Your task to perform on an android device: toggle priority inbox in the gmail app Image 0: 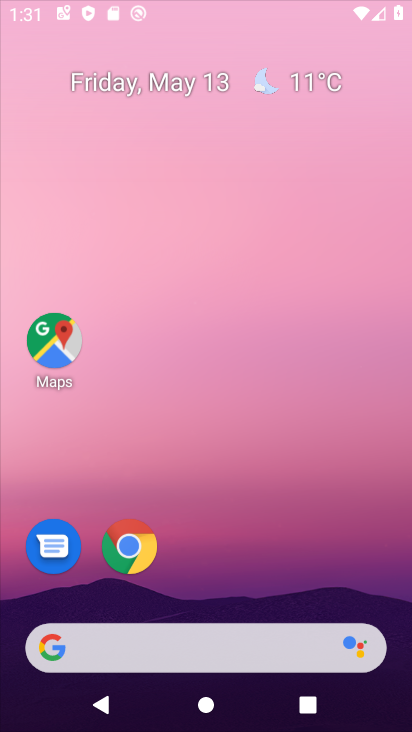
Step 0: click (211, 7)
Your task to perform on an android device: toggle priority inbox in the gmail app Image 1: 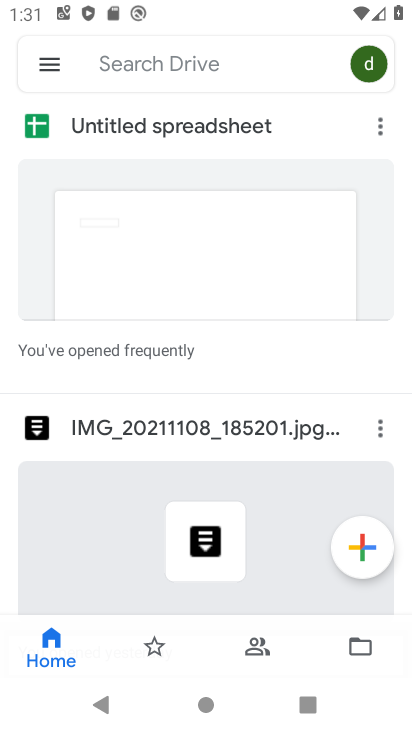
Step 1: press home button
Your task to perform on an android device: toggle priority inbox in the gmail app Image 2: 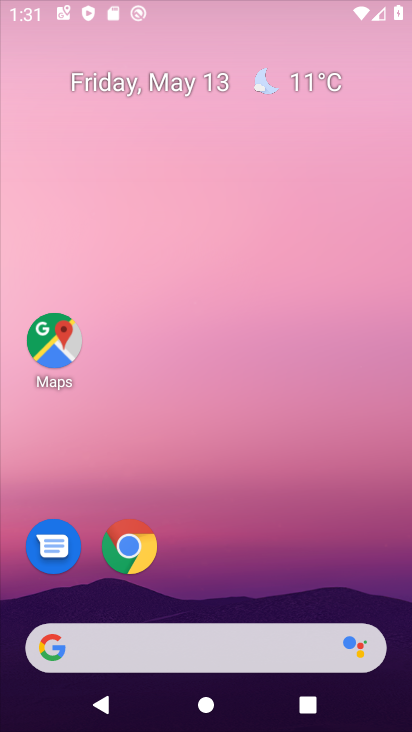
Step 2: drag from (237, 669) to (237, 329)
Your task to perform on an android device: toggle priority inbox in the gmail app Image 3: 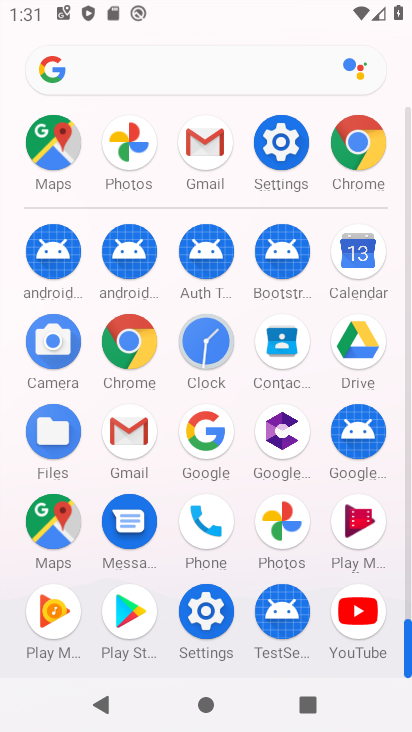
Step 3: click (142, 451)
Your task to perform on an android device: toggle priority inbox in the gmail app Image 4: 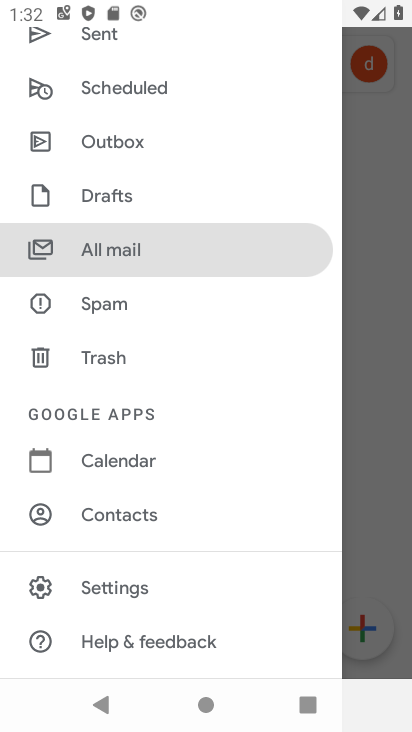
Step 4: click (172, 580)
Your task to perform on an android device: toggle priority inbox in the gmail app Image 5: 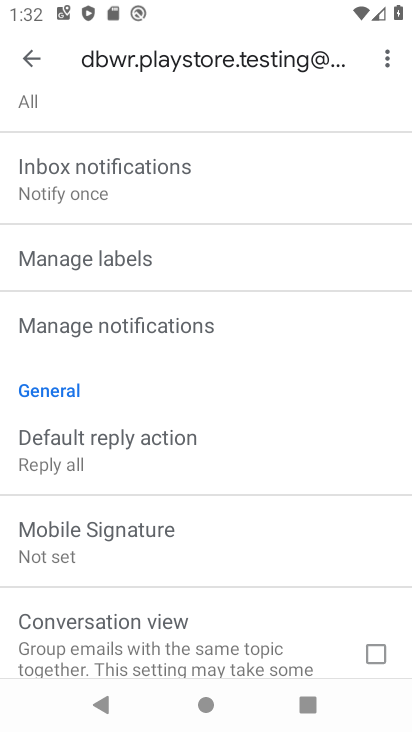
Step 5: drag from (114, 543) to (110, 728)
Your task to perform on an android device: toggle priority inbox in the gmail app Image 6: 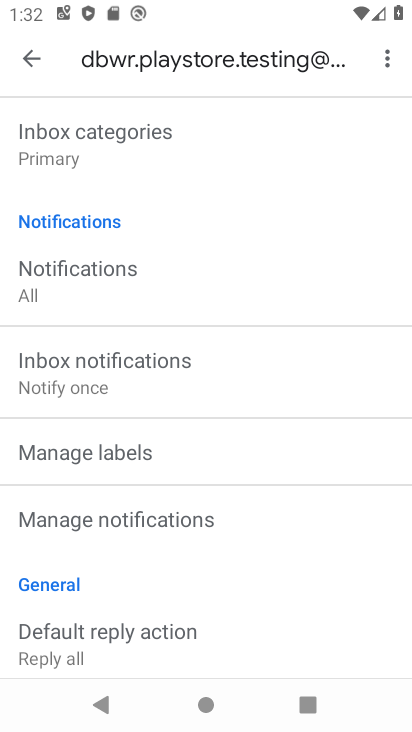
Step 6: drag from (128, 302) to (124, 690)
Your task to perform on an android device: toggle priority inbox in the gmail app Image 7: 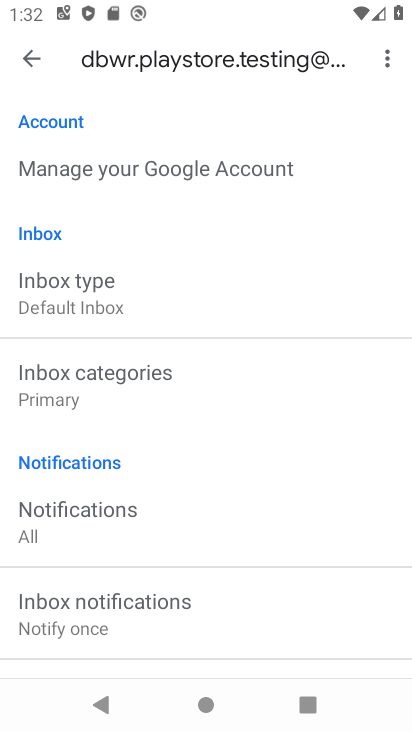
Step 7: click (92, 300)
Your task to perform on an android device: toggle priority inbox in the gmail app Image 8: 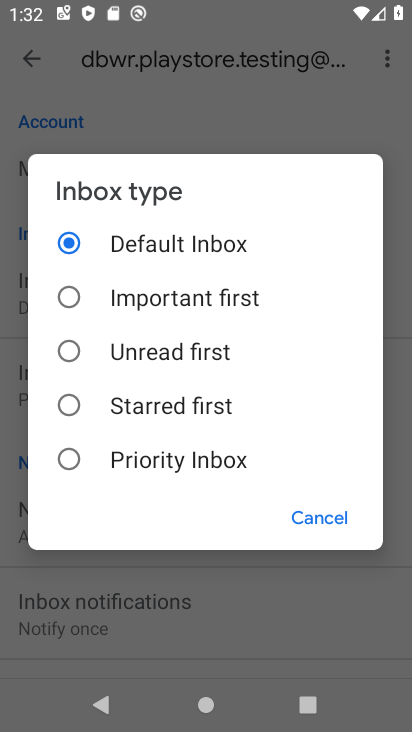
Step 8: click (96, 465)
Your task to perform on an android device: toggle priority inbox in the gmail app Image 9: 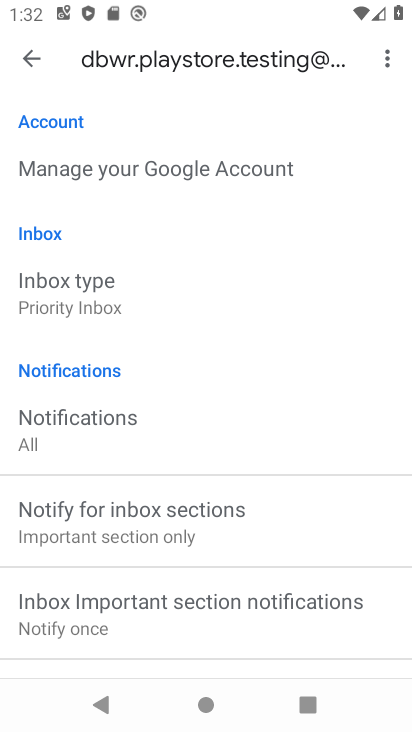
Step 9: task complete